Your task to perform on an android device: set default search engine in the chrome app Image 0: 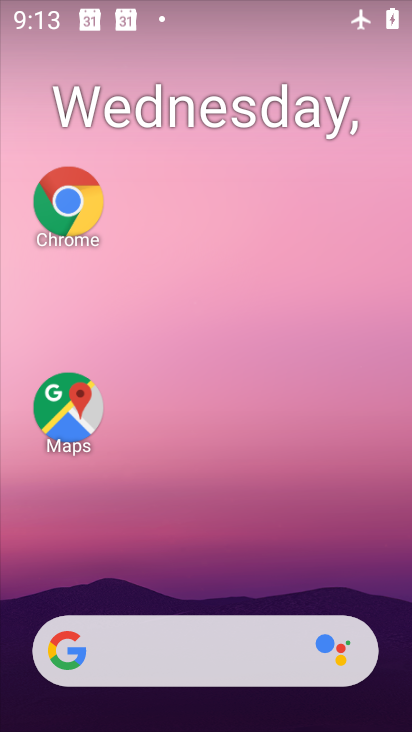
Step 0: click (71, 202)
Your task to perform on an android device: set default search engine in the chrome app Image 1: 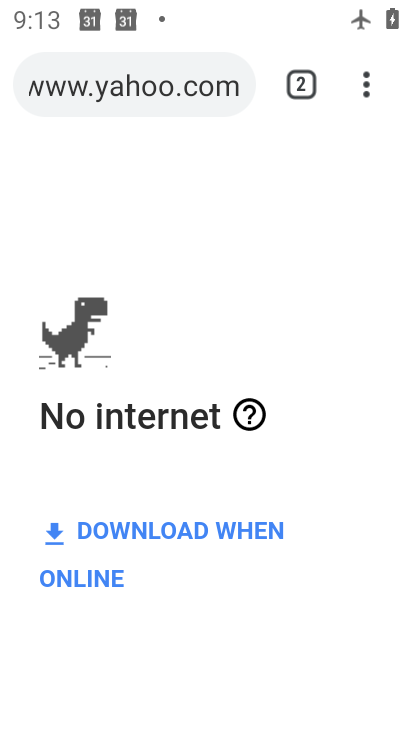
Step 1: click (356, 84)
Your task to perform on an android device: set default search engine in the chrome app Image 2: 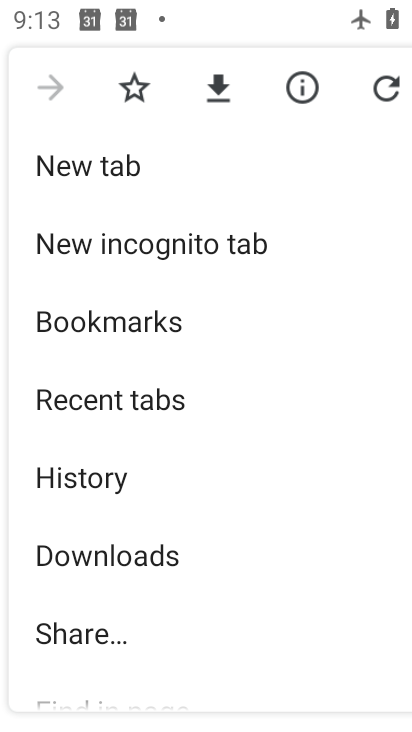
Step 2: drag from (175, 597) to (111, 142)
Your task to perform on an android device: set default search engine in the chrome app Image 3: 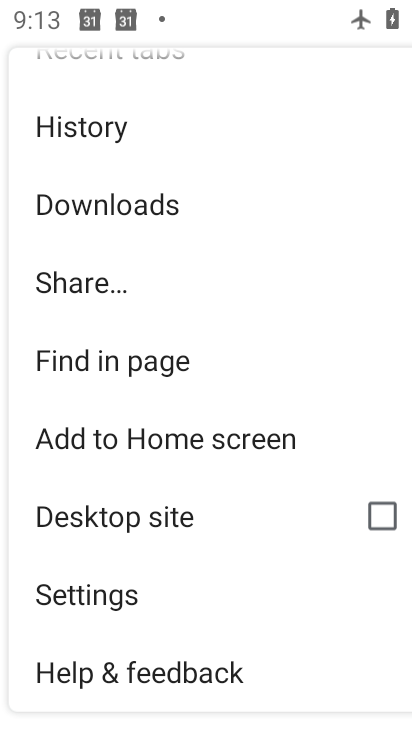
Step 3: click (78, 617)
Your task to perform on an android device: set default search engine in the chrome app Image 4: 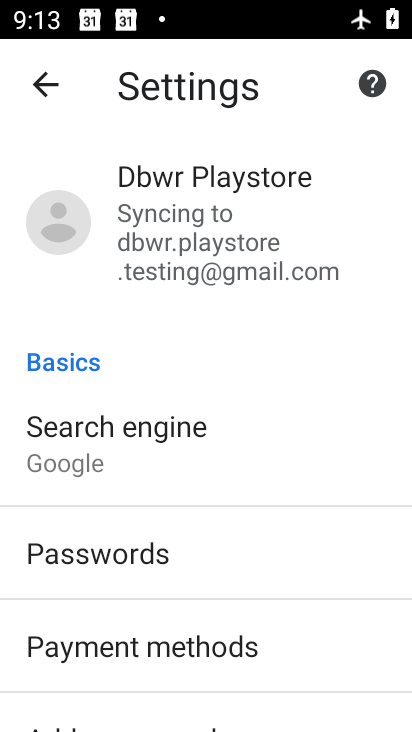
Step 4: click (115, 409)
Your task to perform on an android device: set default search engine in the chrome app Image 5: 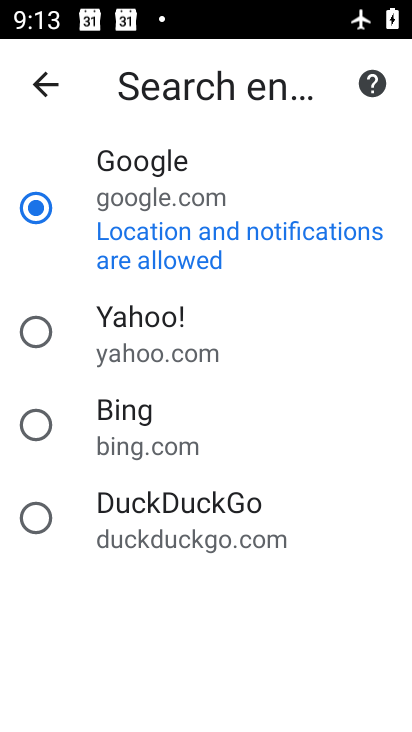
Step 5: click (45, 190)
Your task to perform on an android device: set default search engine in the chrome app Image 6: 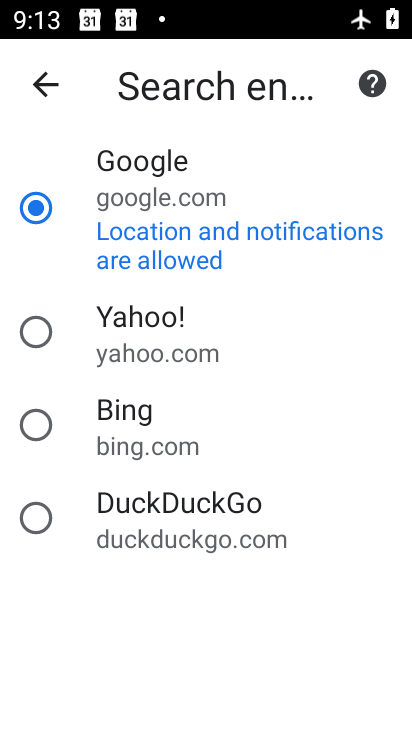
Step 6: task complete